Your task to perform on an android device: Open the web browser Image 0: 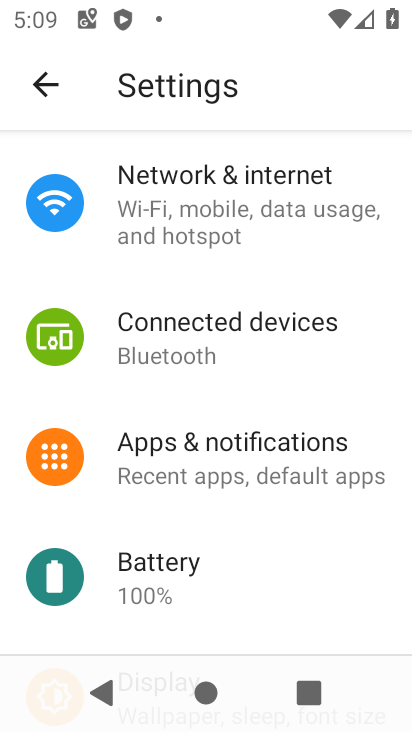
Step 0: press home button
Your task to perform on an android device: Open the web browser Image 1: 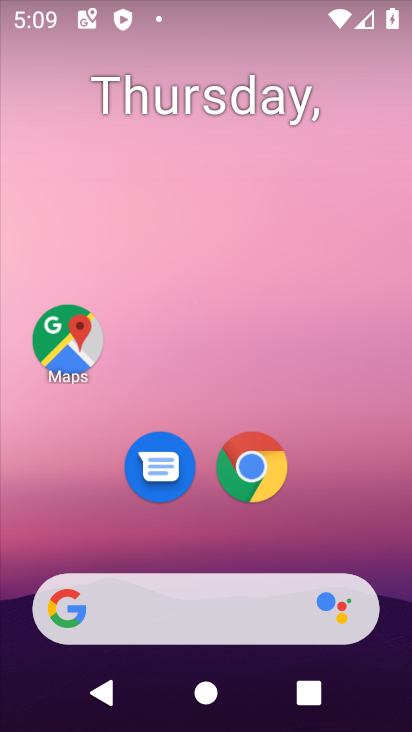
Step 1: click (251, 494)
Your task to perform on an android device: Open the web browser Image 2: 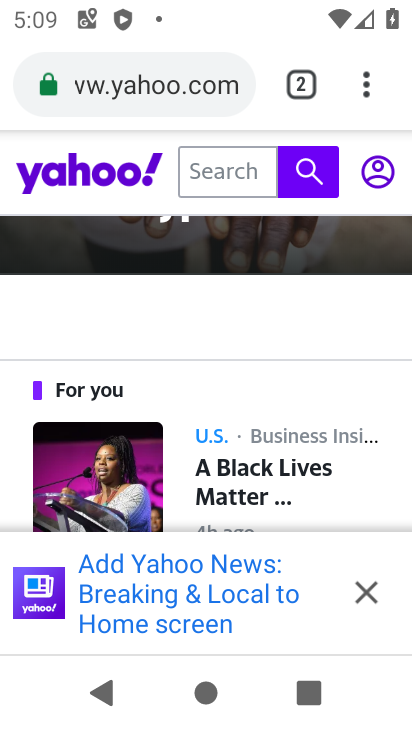
Step 2: task complete